Your task to perform on an android device: Search for vegetarian restaurants on Maps Image 0: 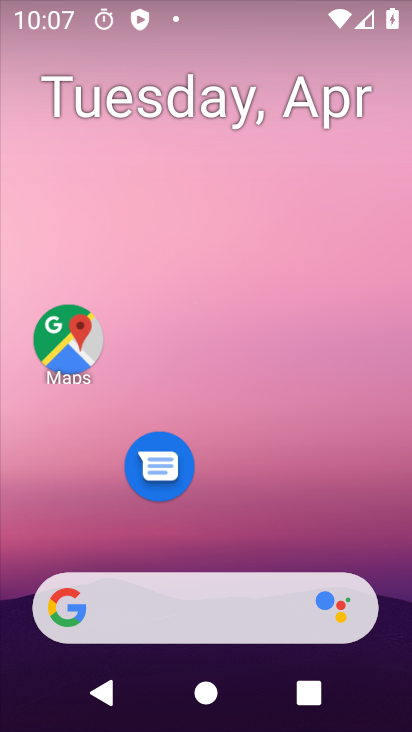
Step 0: drag from (326, 545) to (315, 432)
Your task to perform on an android device: Search for vegetarian restaurants on Maps Image 1: 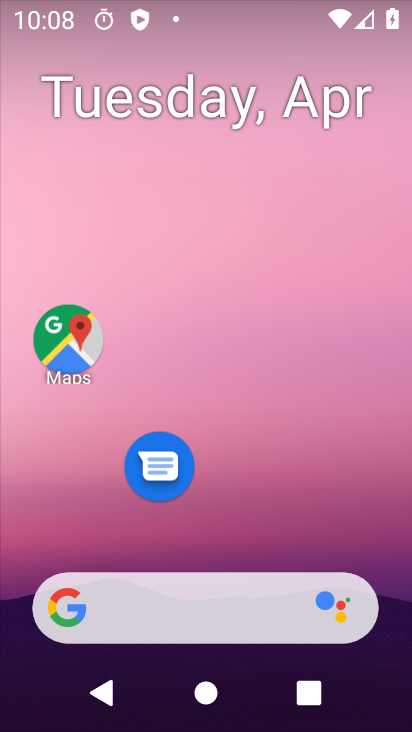
Step 1: click (54, 340)
Your task to perform on an android device: Search for vegetarian restaurants on Maps Image 2: 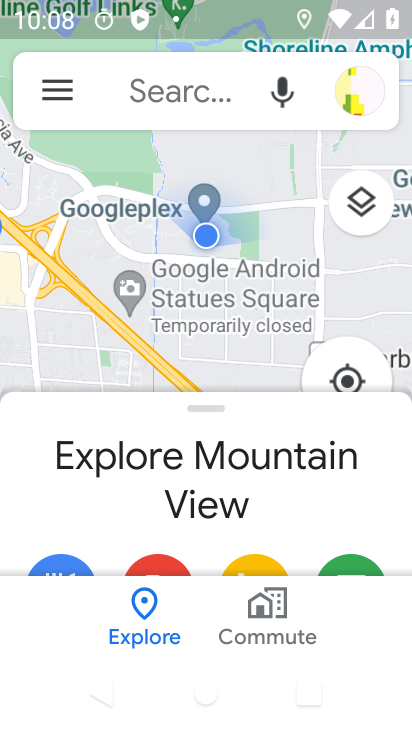
Step 2: click (149, 105)
Your task to perform on an android device: Search for vegetarian restaurants on Maps Image 3: 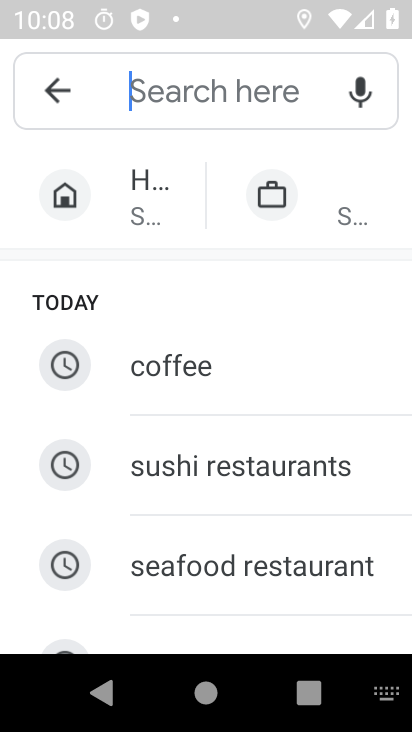
Step 3: type "vegetarian"
Your task to perform on an android device: Search for vegetarian restaurants on Maps Image 4: 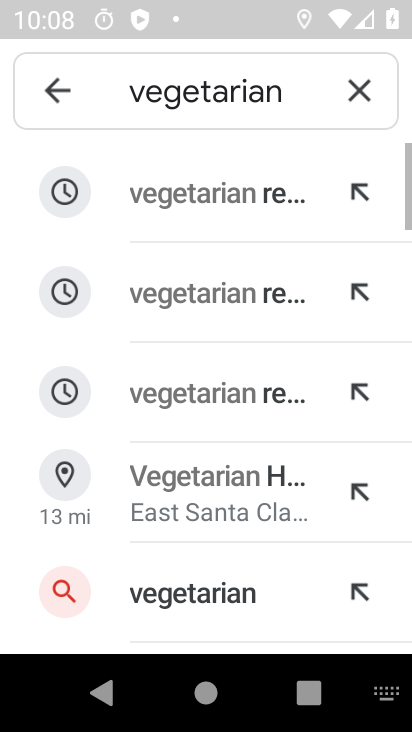
Step 4: click (258, 207)
Your task to perform on an android device: Search for vegetarian restaurants on Maps Image 5: 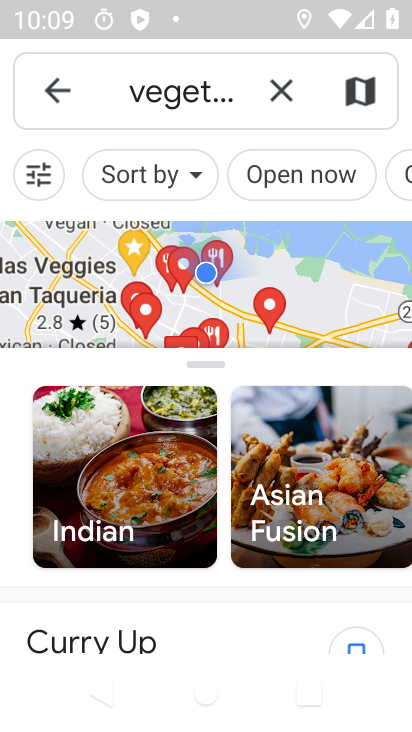
Step 5: task complete